Your task to perform on an android device: open app "Firefox Browser" (install if not already installed) Image 0: 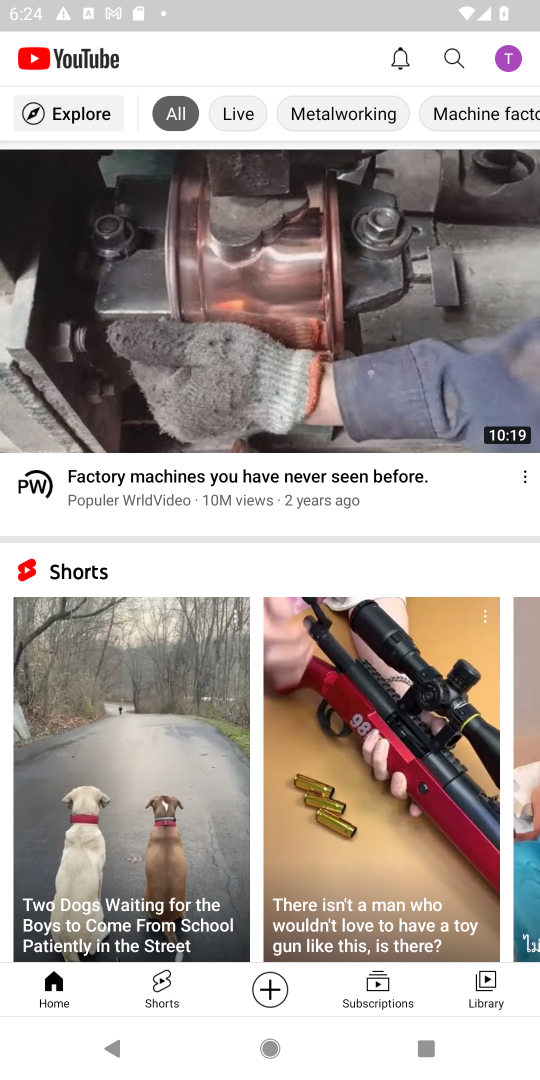
Step 0: press home button
Your task to perform on an android device: open app "Firefox Browser" (install if not already installed) Image 1: 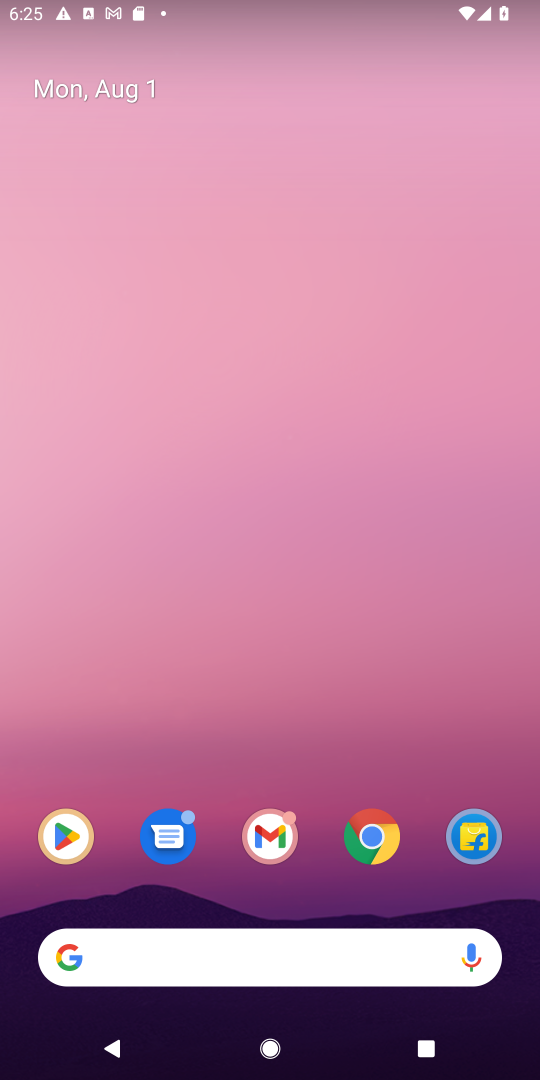
Step 1: click (69, 837)
Your task to perform on an android device: open app "Firefox Browser" (install if not already installed) Image 2: 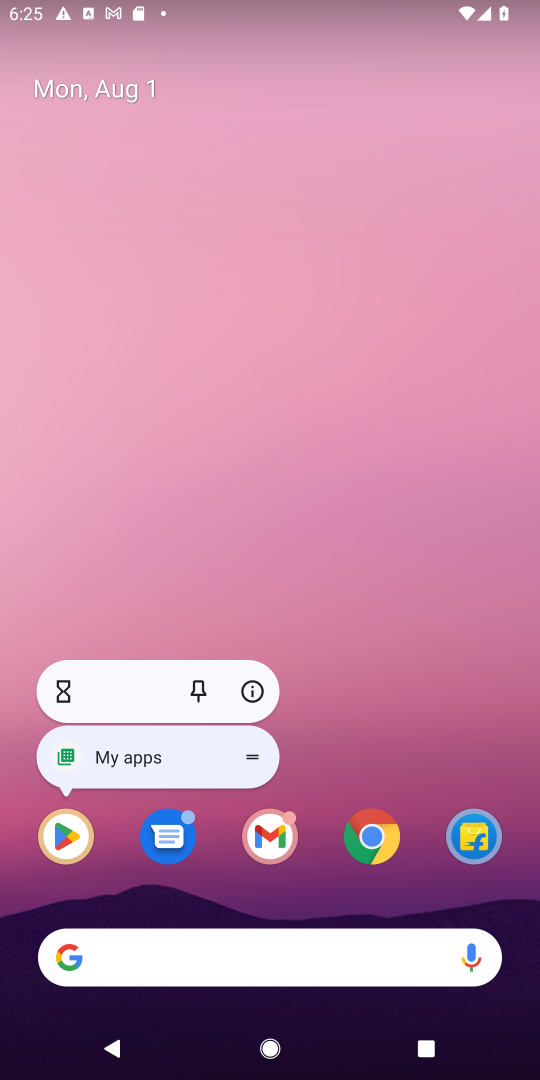
Step 2: click (60, 843)
Your task to perform on an android device: open app "Firefox Browser" (install if not already installed) Image 3: 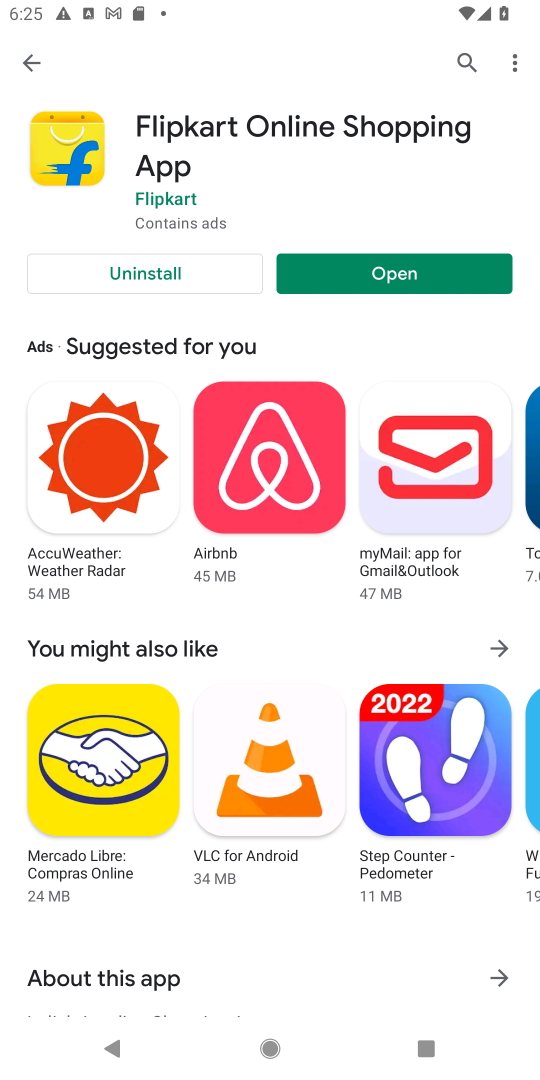
Step 3: click (462, 55)
Your task to perform on an android device: open app "Firefox Browser" (install if not already installed) Image 4: 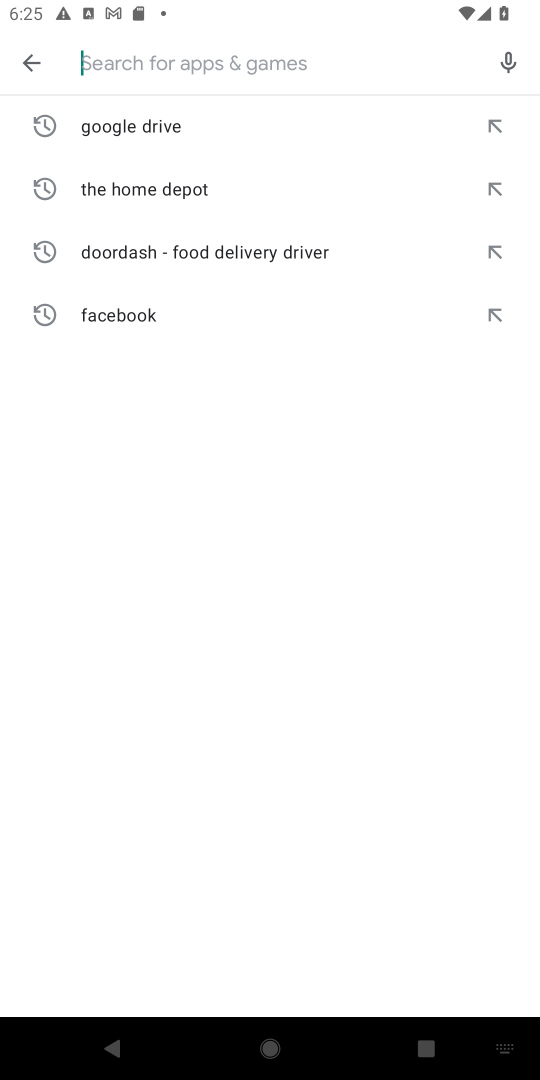
Step 4: type "Firefox Browser"
Your task to perform on an android device: open app "Firefox Browser" (install if not already installed) Image 5: 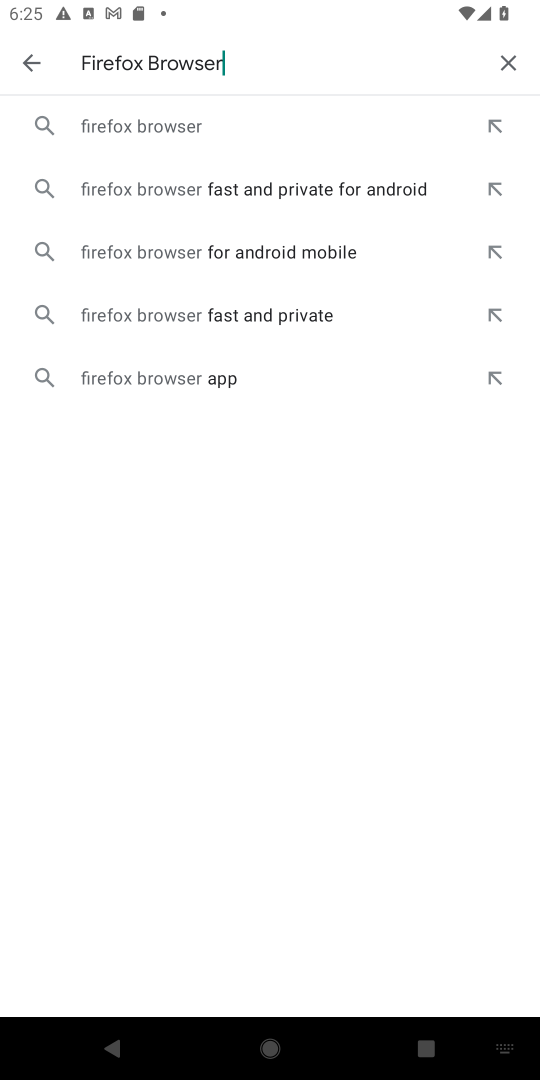
Step 5: click (171, 124)
Your task to perform on an android device: open app "Firefox Browser" (install if not already installed) Image 6: 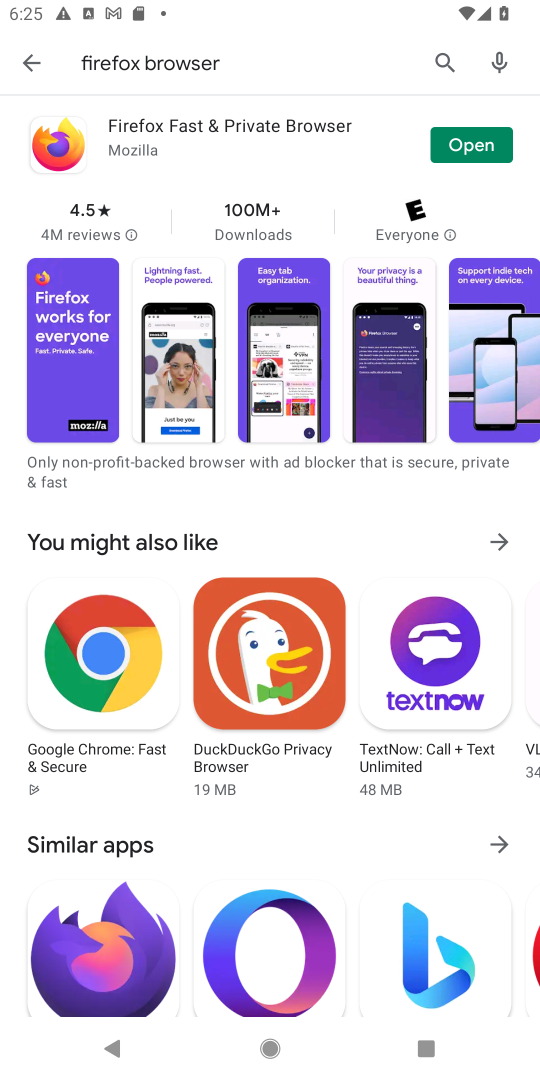
Step 6: click (477, 150)
Your task to perform on an android device: open app "Firefox Browser" (install if not already installed) Image 7: 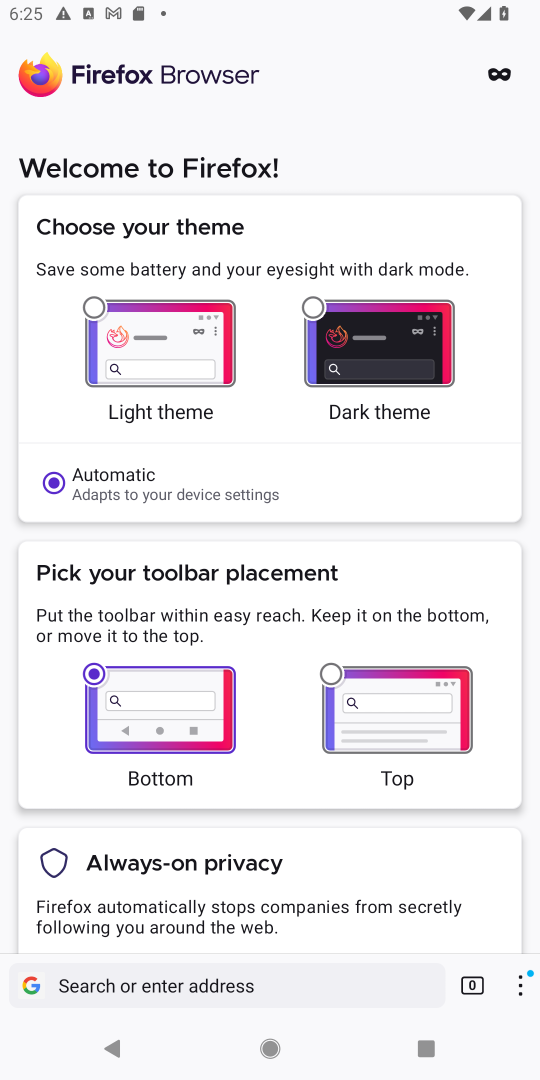
Step 7: task complete